Your task to perform on an android device: How do I get to the nearest Walmart? Image 0: 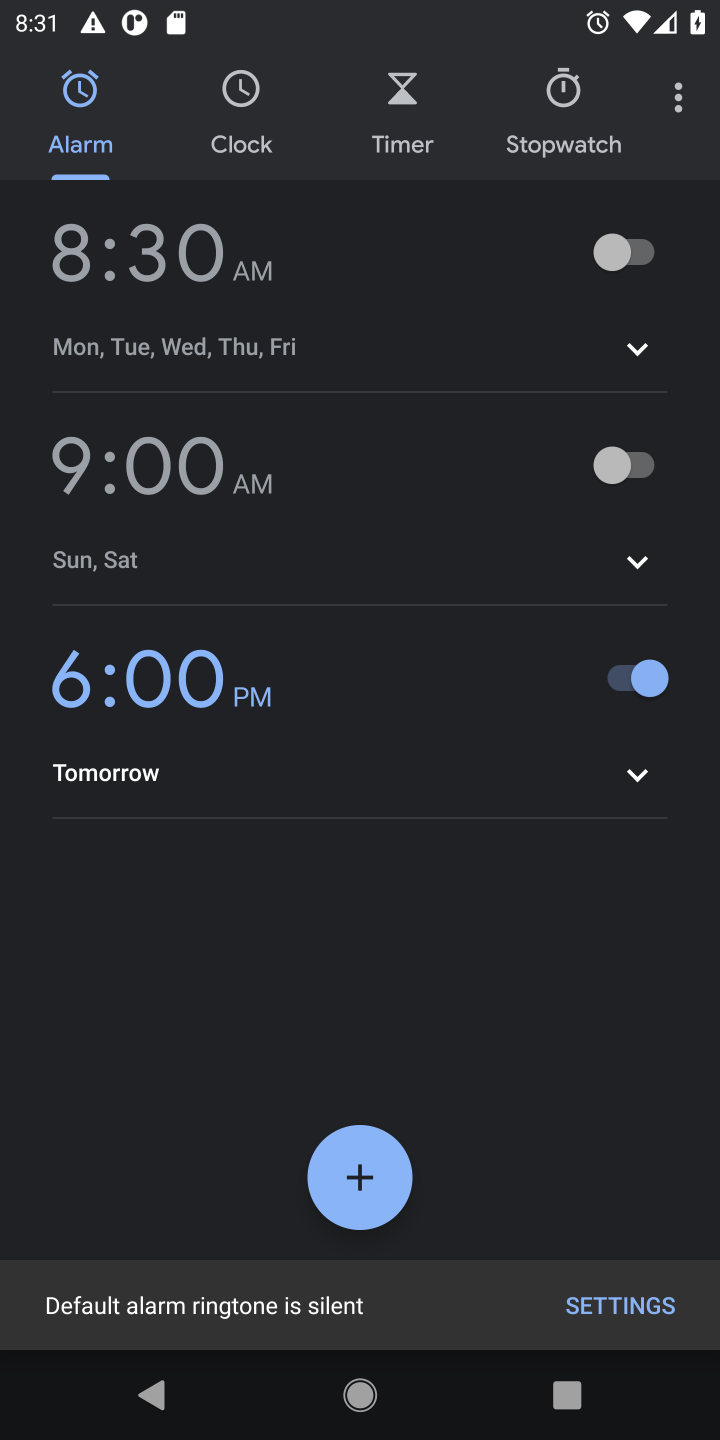
Step 0: press home button
Your task to perform on an android device: How do I get to the nearest Walmart? Image 1: 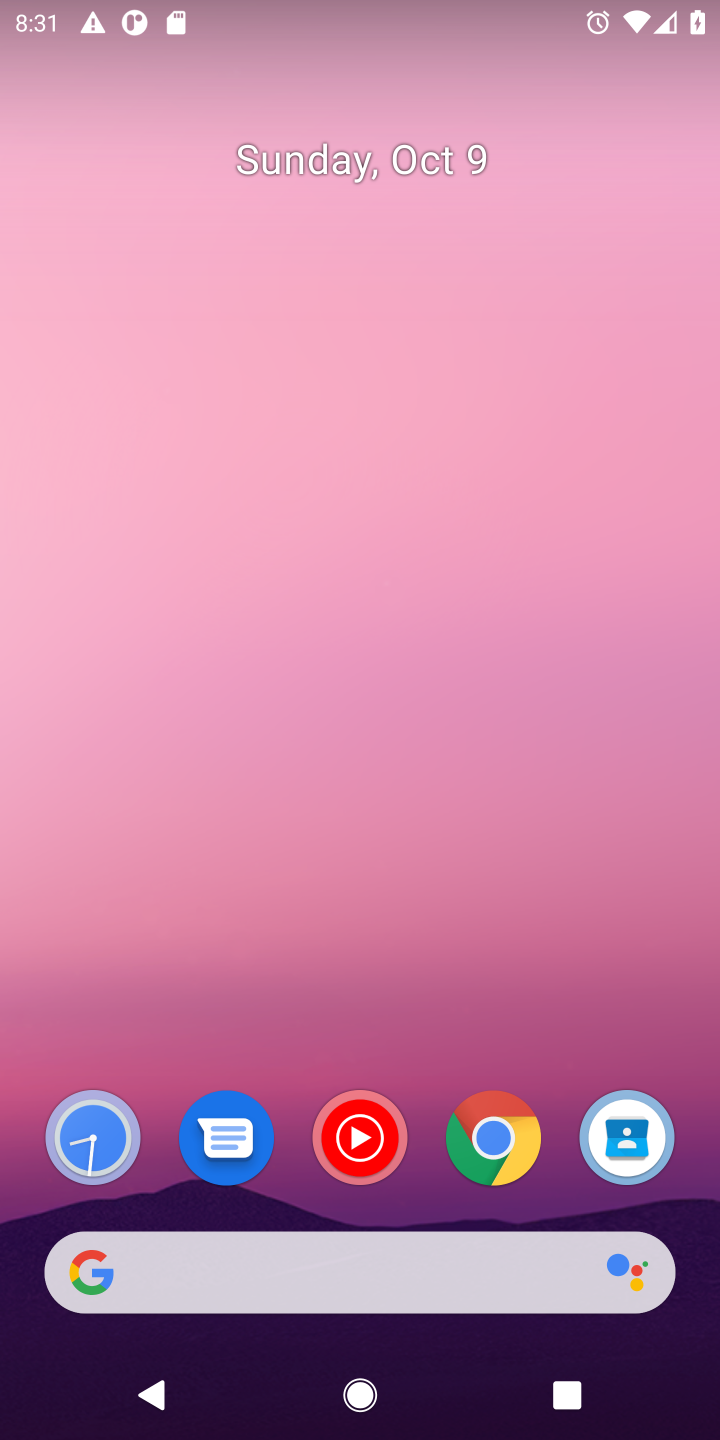
Step 1: drag from (395, 1019) to (380, 562)
Your task to perform on an android device: How do I get to the nearest Walmart? Image 2: 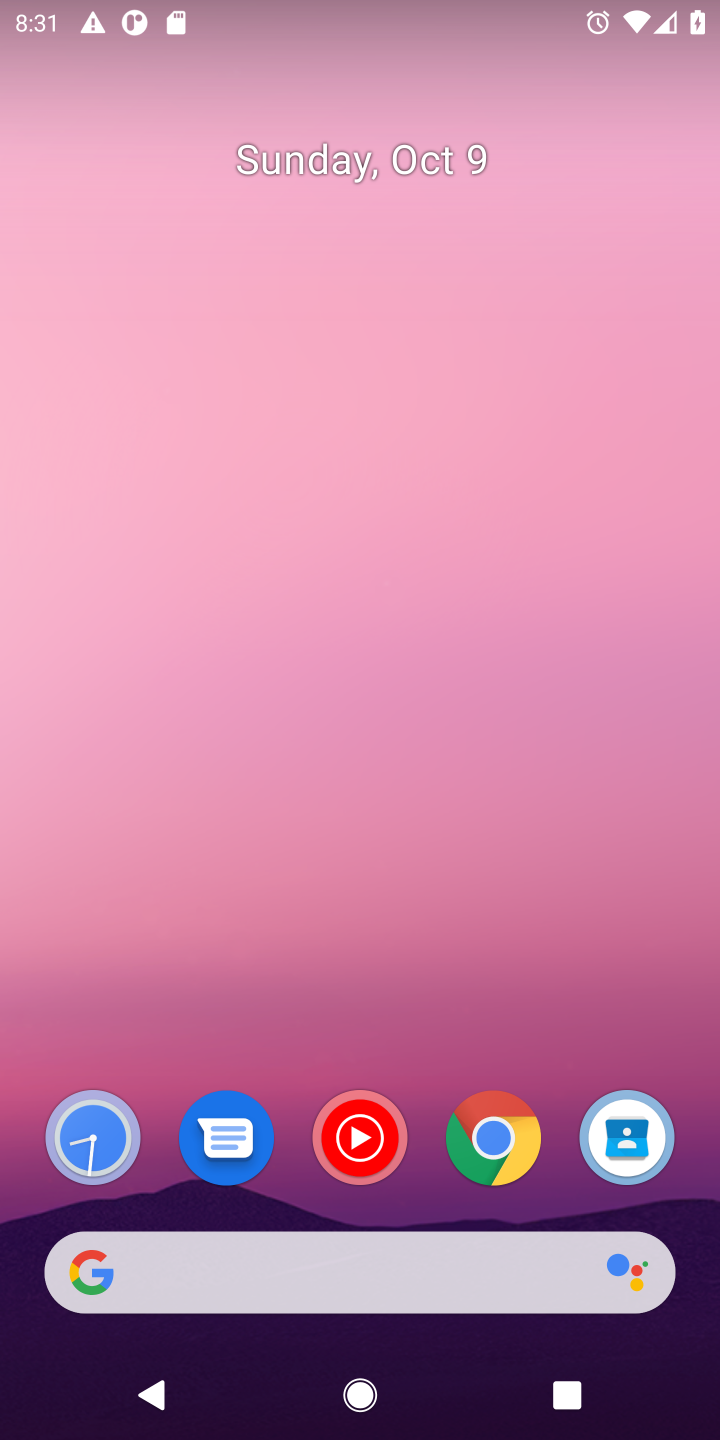
Step 2: drag from (256, 1299) to (250, 306)
Your task to perform on an android device: How do I get to the nearest Walmart? Image 3: 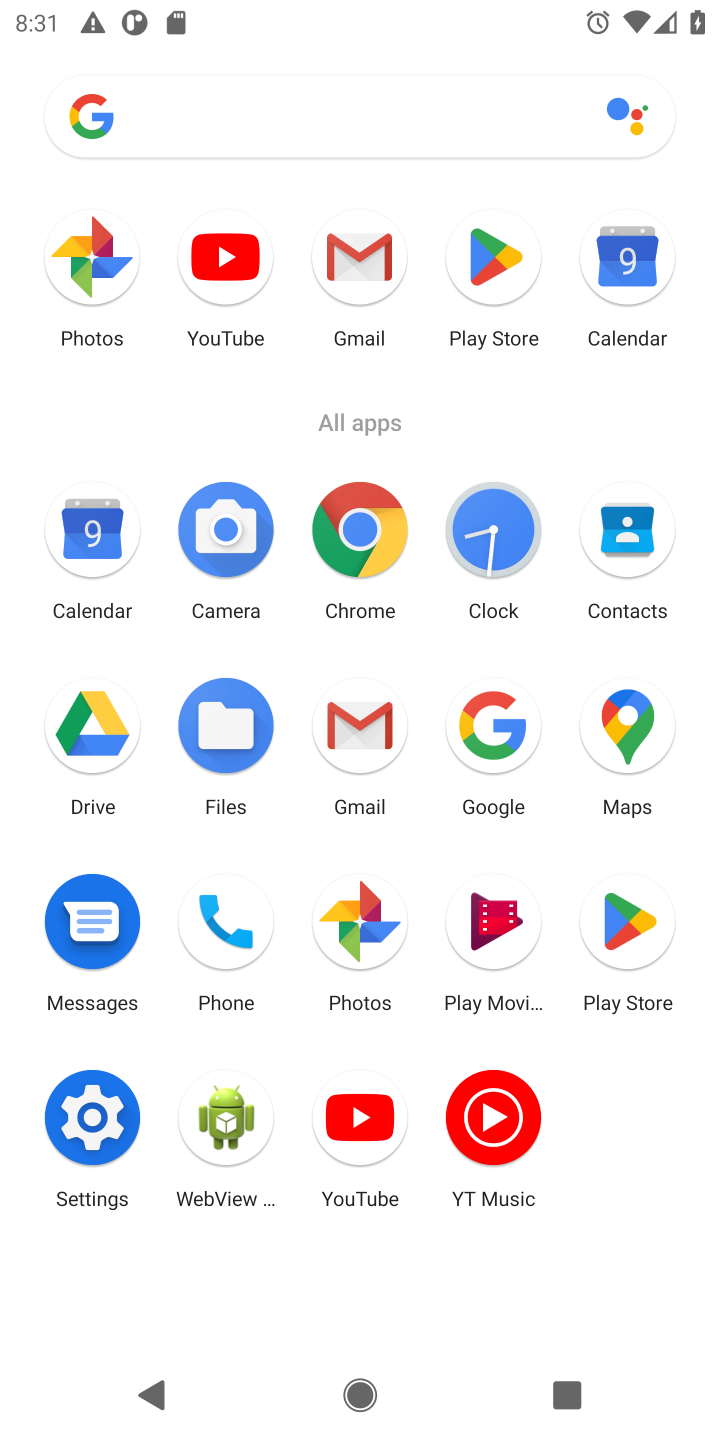
Step 3: click (486, 716)
Your task to perform on an android device: How do I get to the nearest Walmart? Image 4: 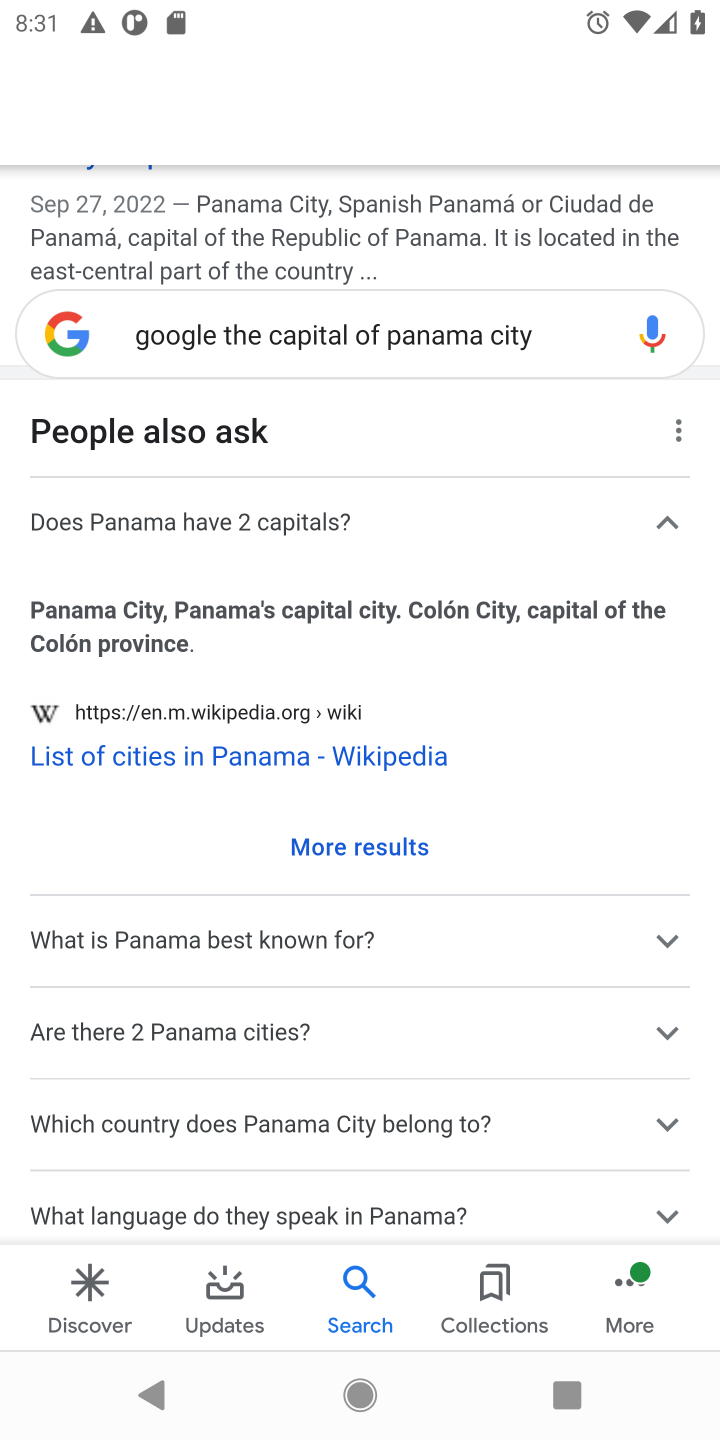
Step 4: click (422, 322)
Your task to perform on an android device: How do I get to the nearest Walmart? Image 5: 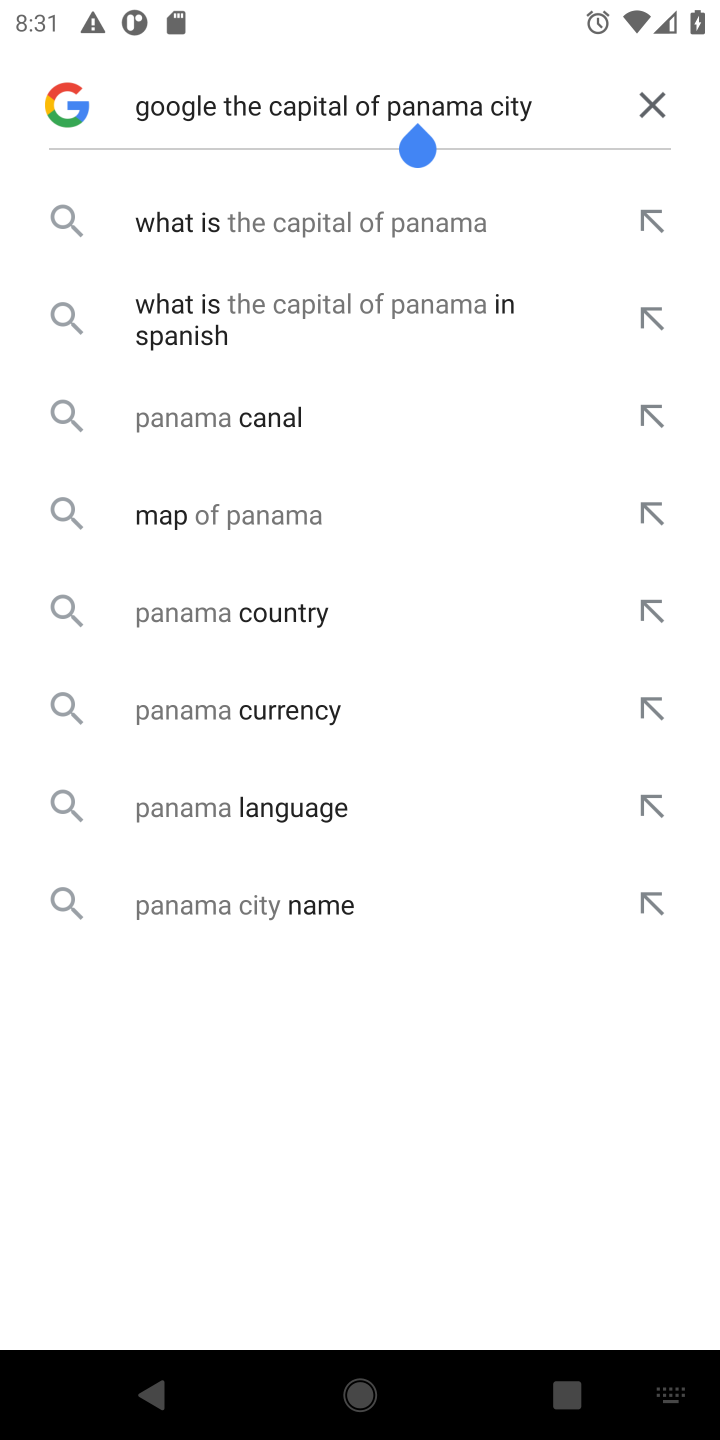
Step 5: click (640, 107)
Your task to perform on an android device: How do I get to the nearest Walmart? Image 6: 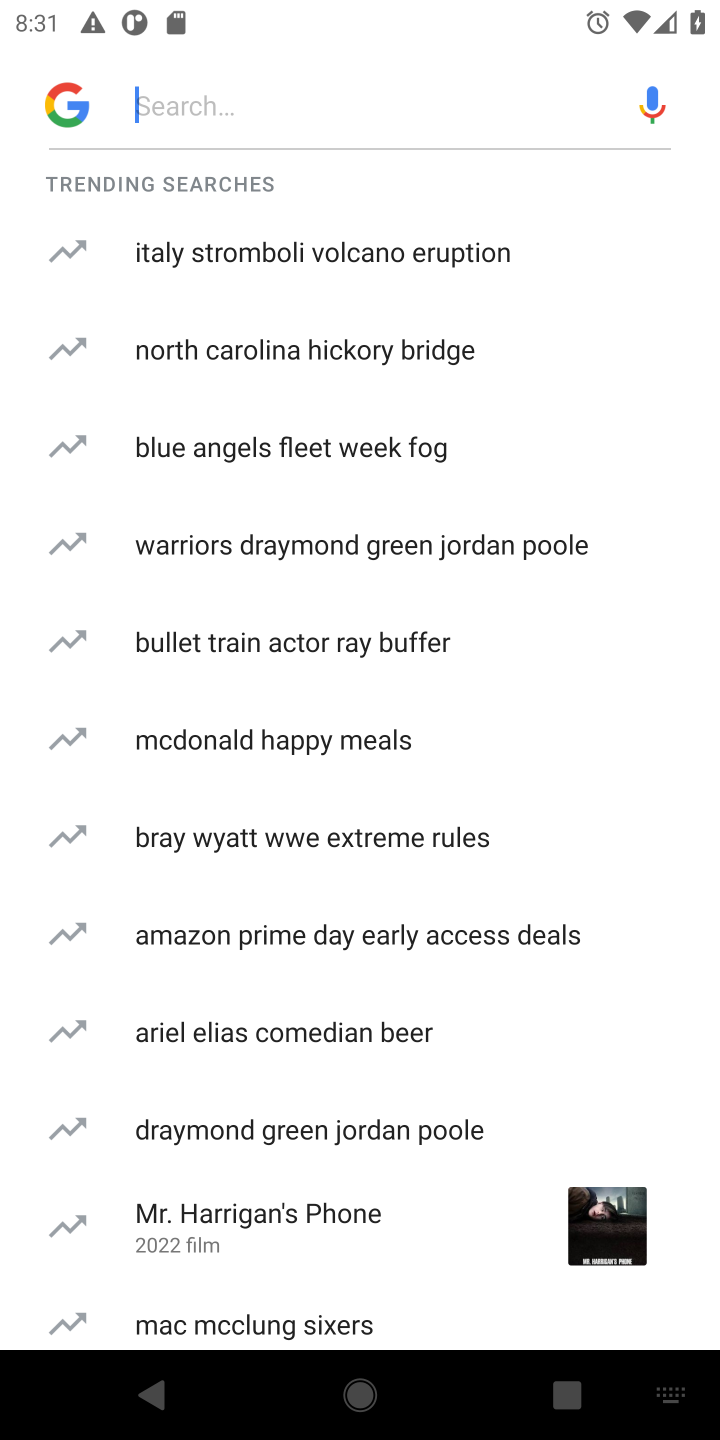
Step 6: click (423, 94)
Your task to perform on an android device: How do I get to the nearest Walmart? Image 7: 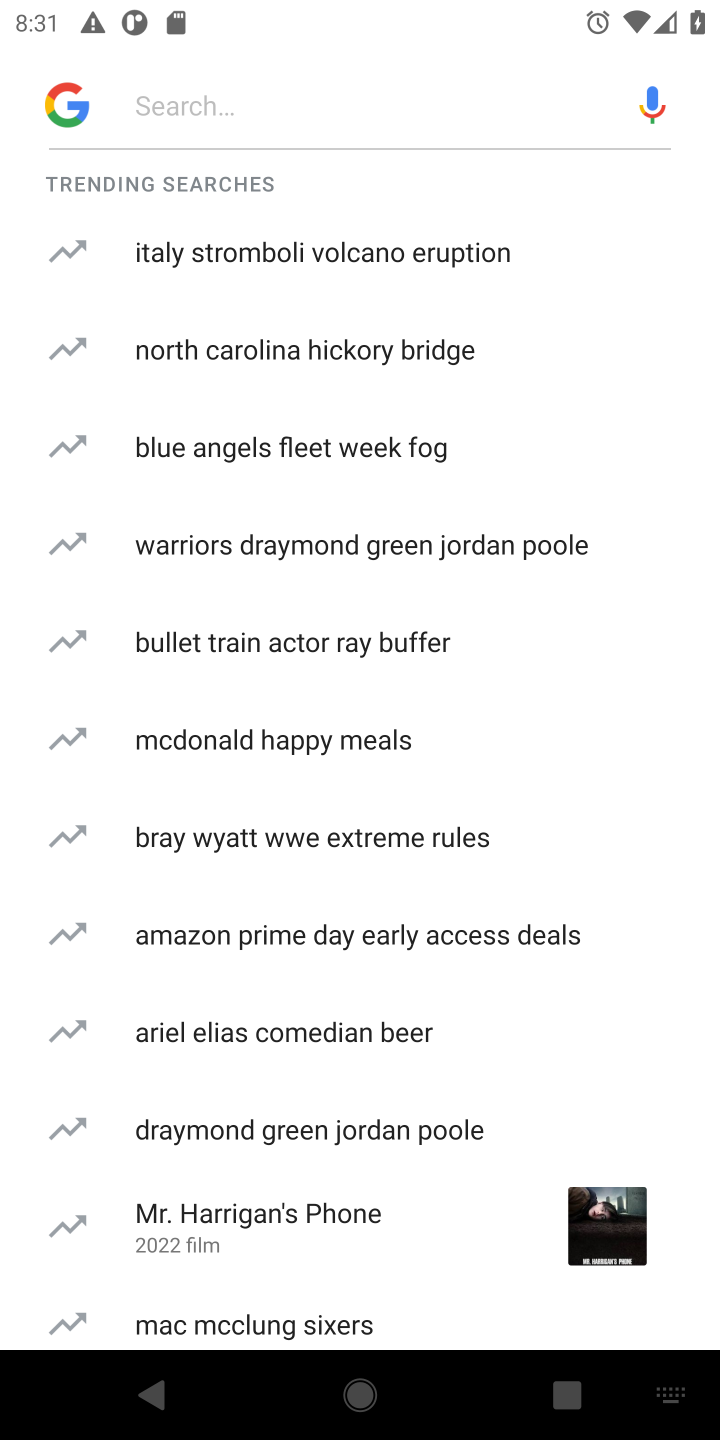
Step 7: type "How do I get to the nearest Walmart? "
Your task to perform on an android device: How do I get to the nearest Walmart? Image 8: 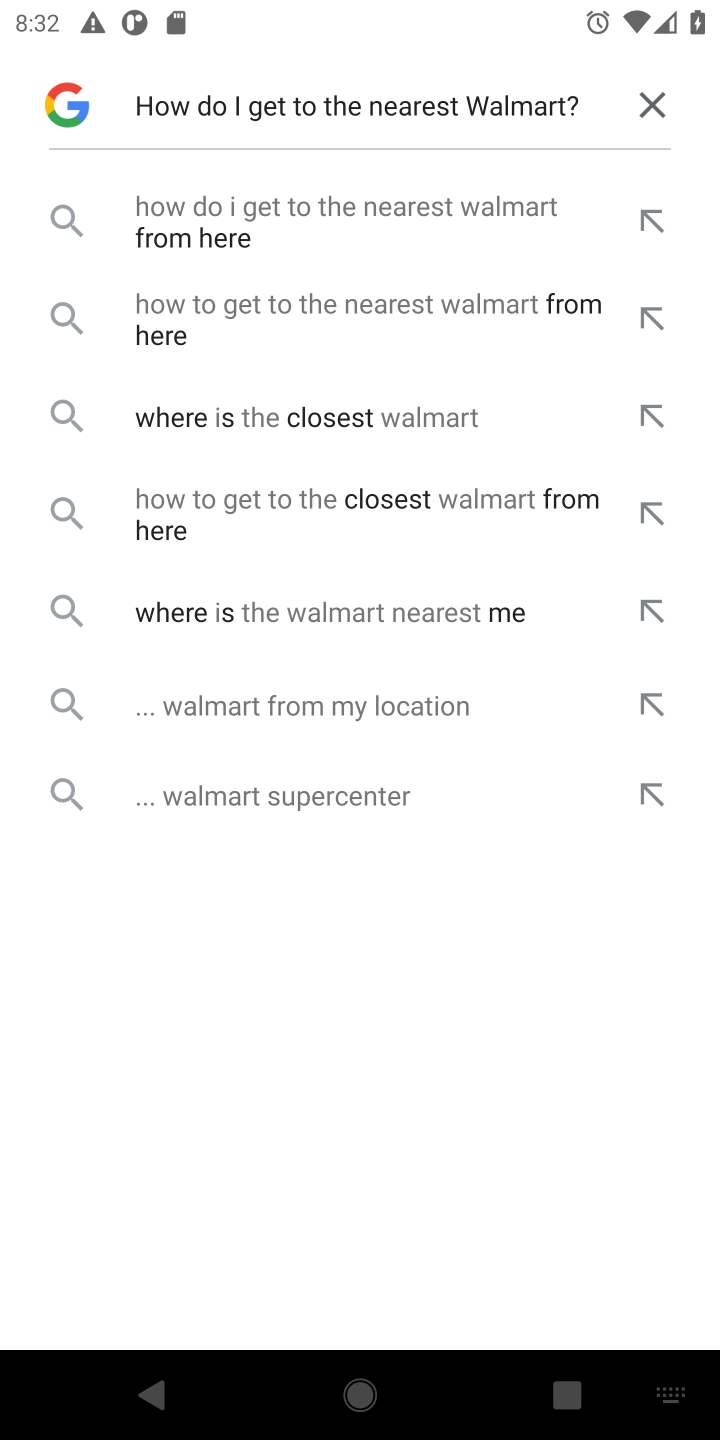
Step 8: click (275, 218)
Your task to perform on an android device: How do I get to the nearest Walmart? Image 9: 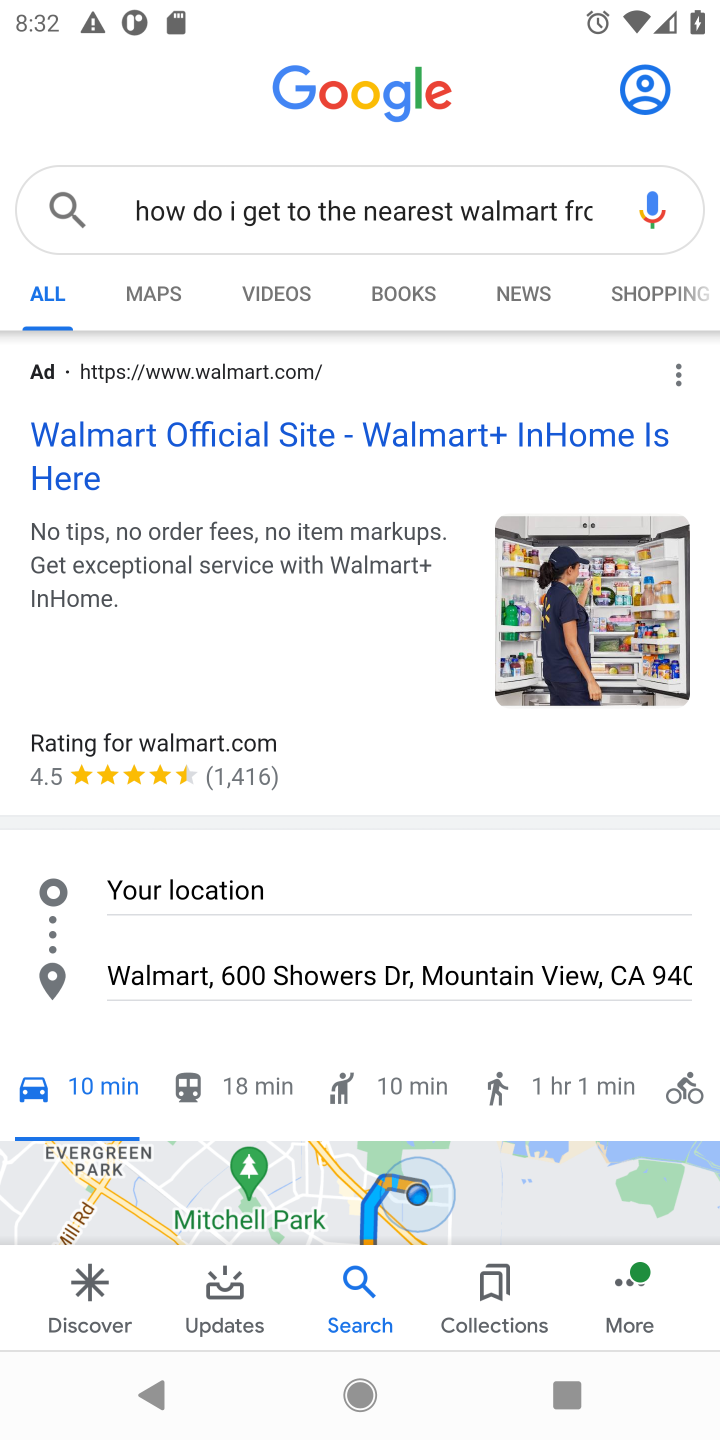
Step 9: drag from (353, 960) to (321, 1383)
Your task to perform on an android device: How do I get to the nearest Walmart? Image 10: 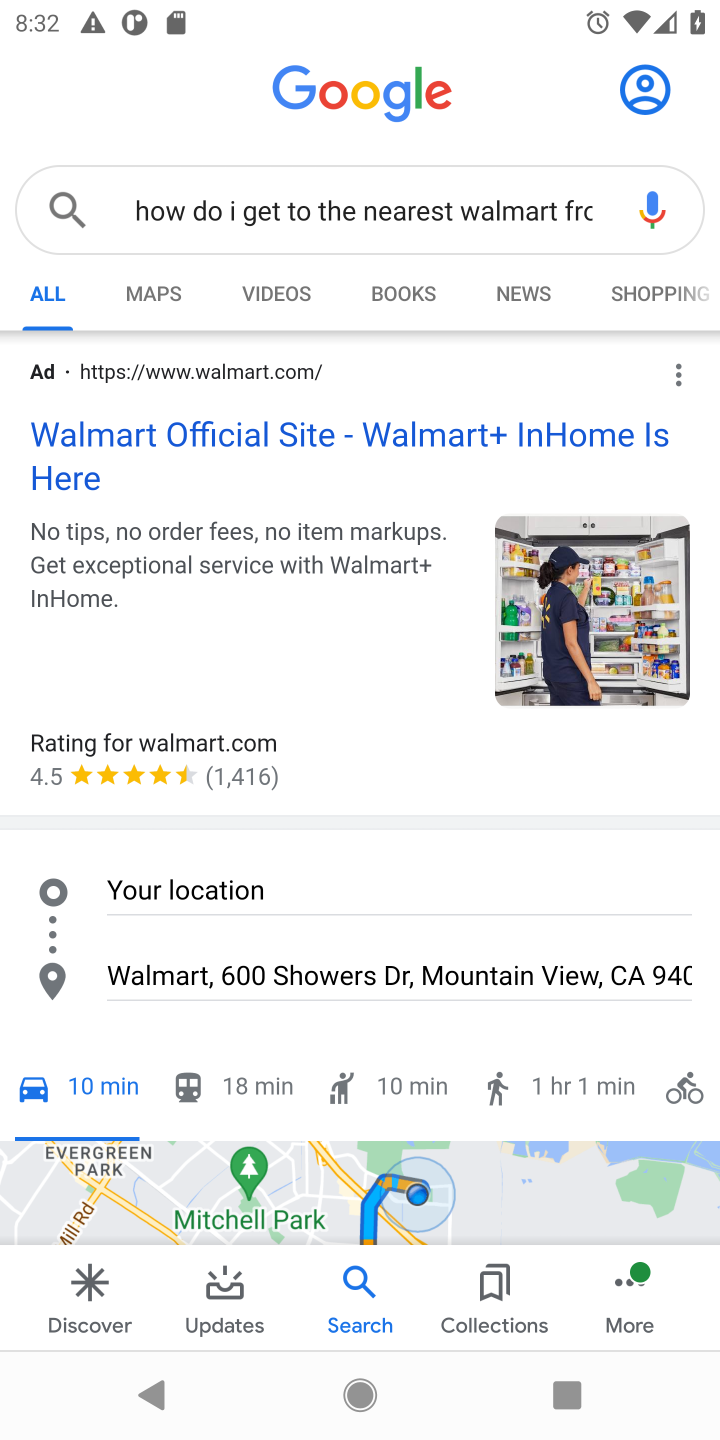
Step 10: click (324, 434)
Your task to perform on an android device: How do I get to the nearest Walmart? Image 11: 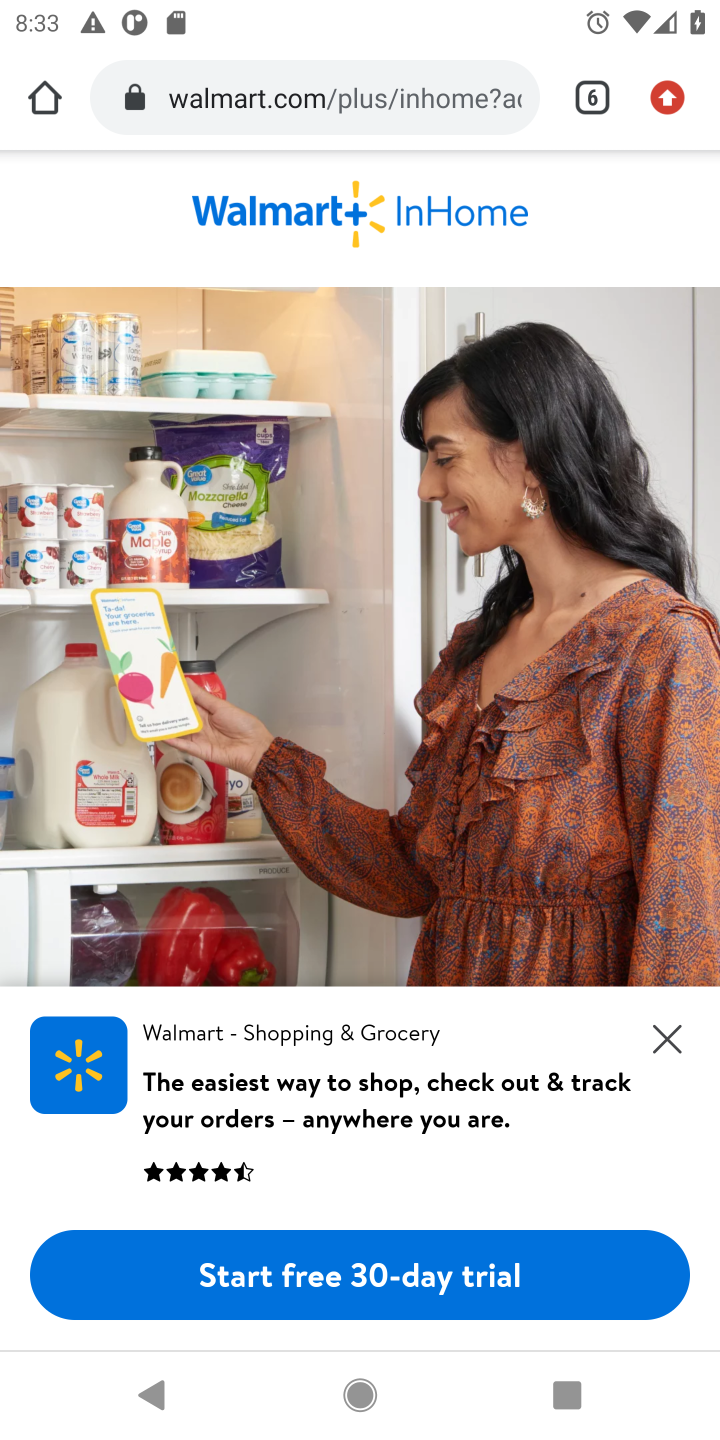
Step 11: click (659, 1032)
Your task to perform on an android device: How do I get to the nearest Walmart? Image 12: 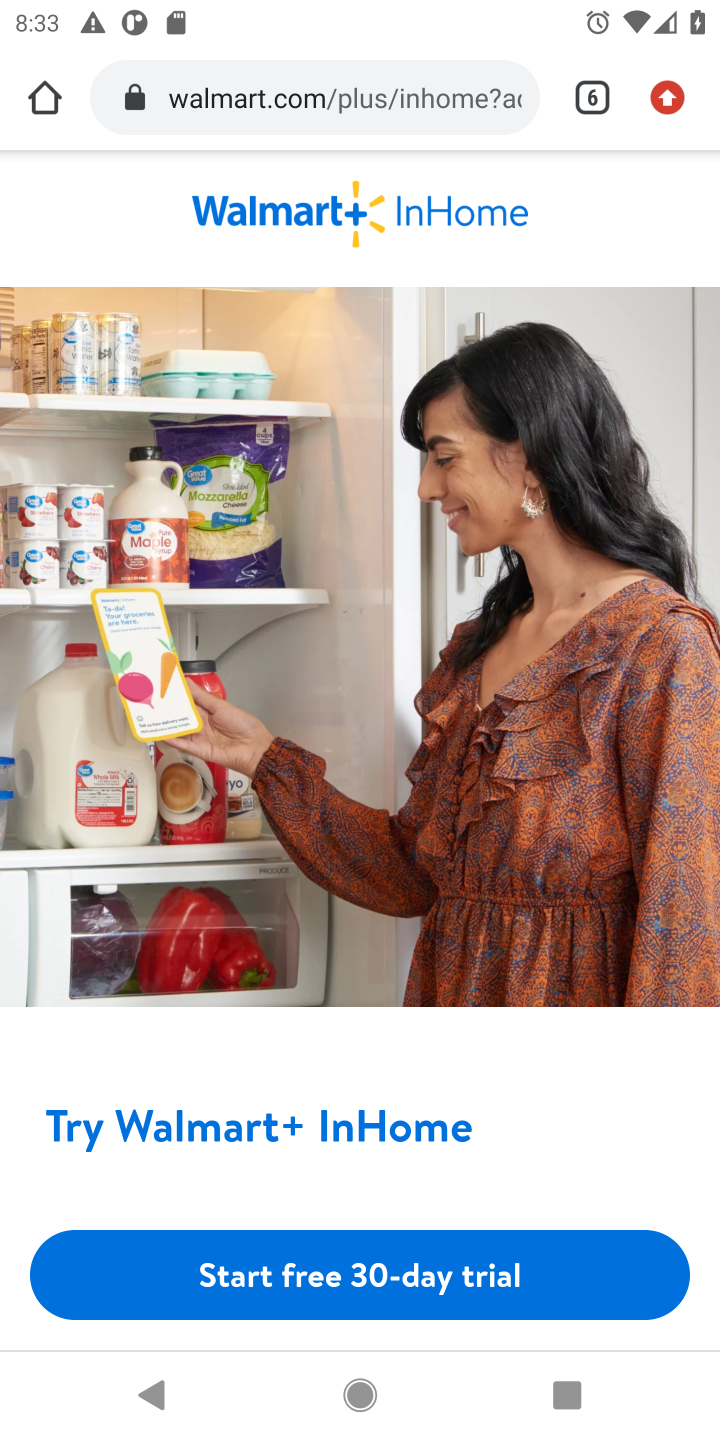
Step 12: task complete